Your task to perform on an android device: What's the news in the Dominican Republic? Image 0: 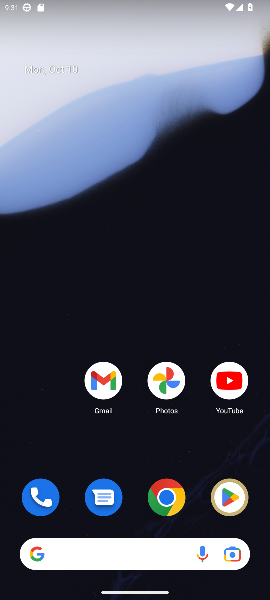
Step 0: drag from (52, 459) to (54, 243)
Your task to perform on an android device: What's the news in the Dominican Republic? Image 1: 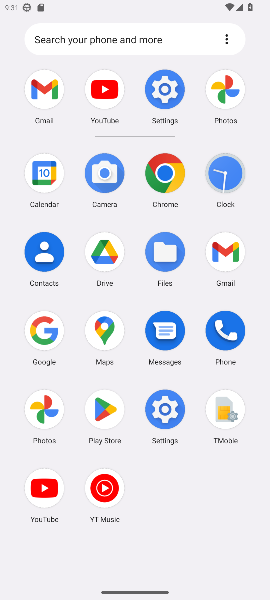
Step 1: click (41, 333)
Your task to perform on an android device: What's the news in the Dominican Republic? Image 2: 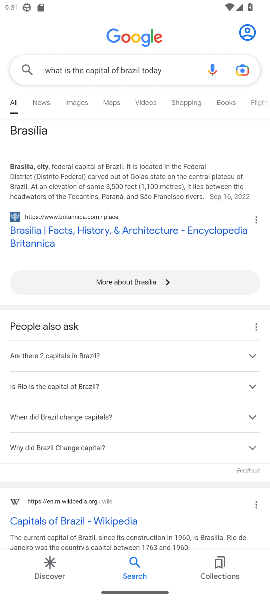
Step 2: click (125, 63)
Your task to perform on an android device: What's the news in the Dominican Republic? Image 3: 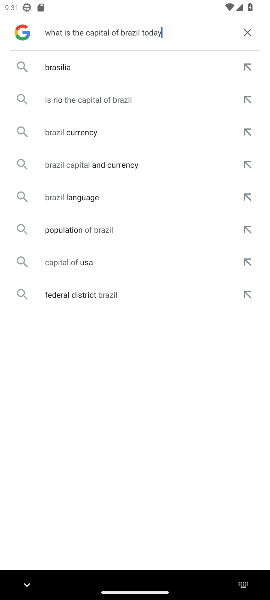
Step 3: click (245, 26)
Your task to perform on an android device: What's the news in the Dominican Republic? Image 4: 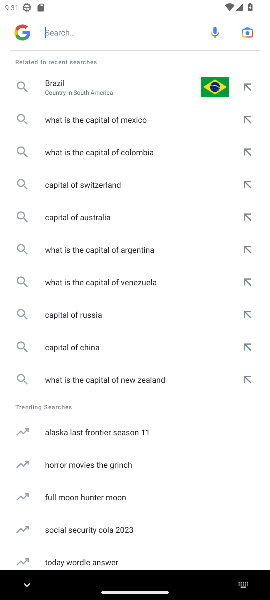
Step 4: click (65, 24)
Your task to perform on an android device: What's the news in the Dominican Republic? Image 5: 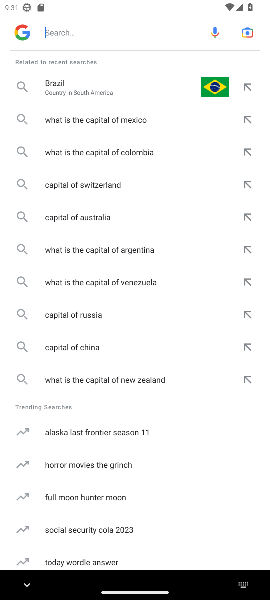
Step 5: type "What's the news in the Dominican Republic? "
Your task to perform on an android device: What's the news in the Dominican Republic? Image 6: 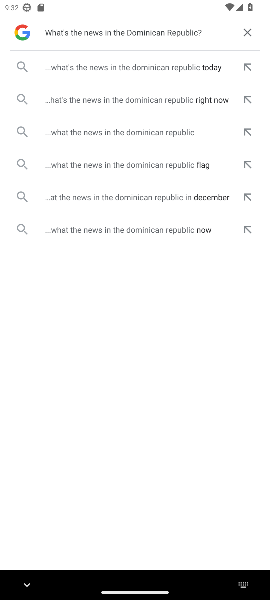
Step 6: click (116, 66)
Your task to perform on an android device: What's the news in the Dominican Republic? Image 7: 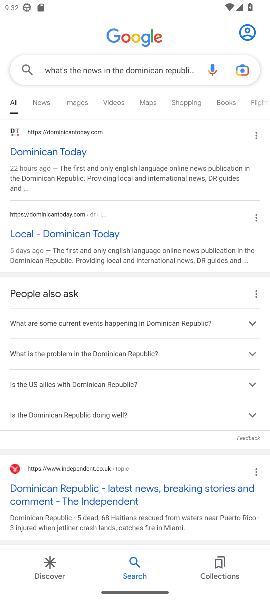
Step 7: click (46, 153)
Your task to perform on an android device: What's the news in the Dominican Republic? Image 8: 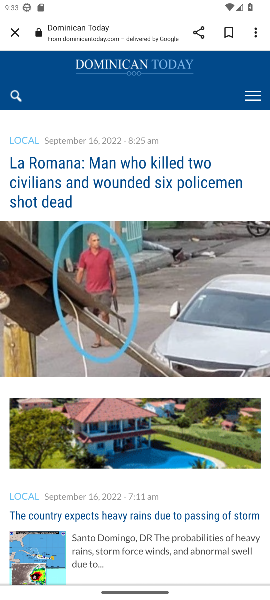
Step 8: task complete